Your task to perform on an android device: Toggle the flashlight Image 0: 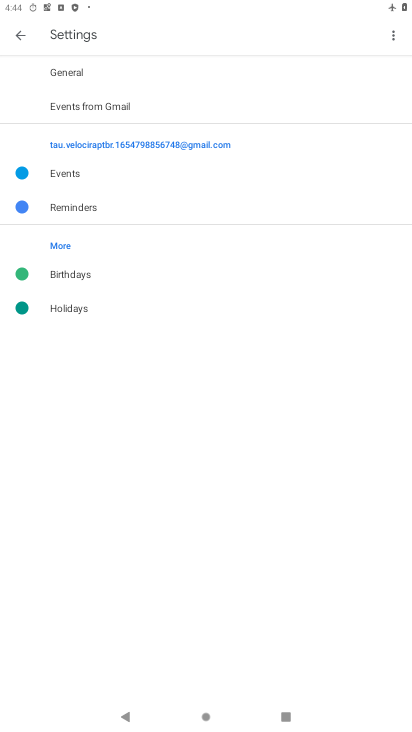
Step 0: press home button
Your task to perform on an android device: Toggle the flashlight Image 1: 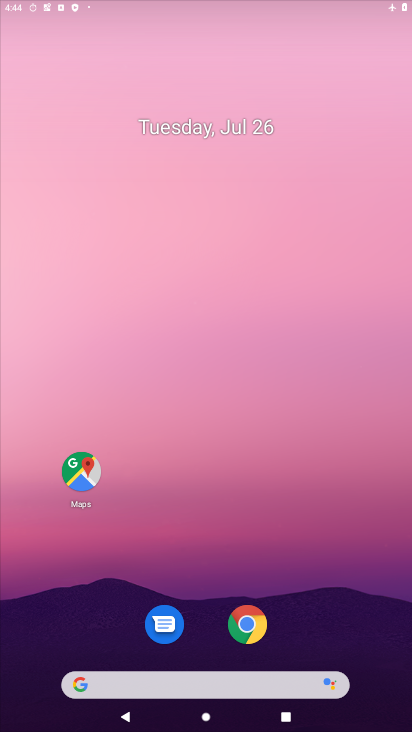
Step 1: task complete